Your task to perform on an android device: Open Android settings Image 0: 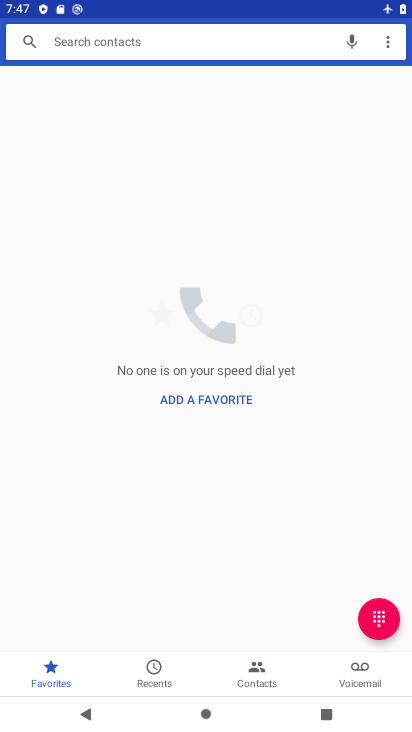
Step 0: press home button
Your task to perform on an android device: Open Android settings Image 1: 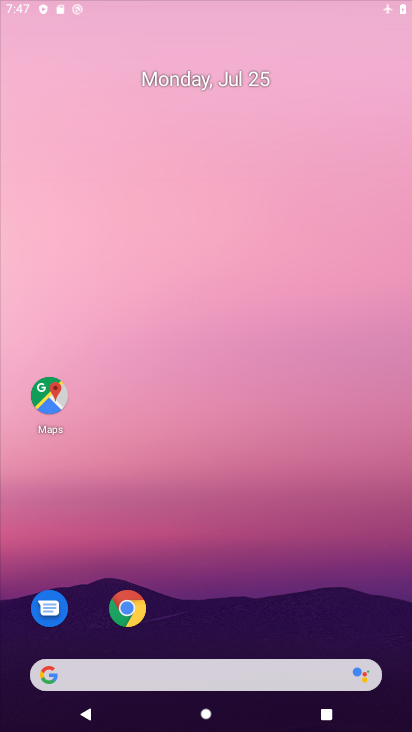
Step 1: drag from (350, 662) to (355, 203)
Your task to perform on an android device: Open Android settings Image 2: 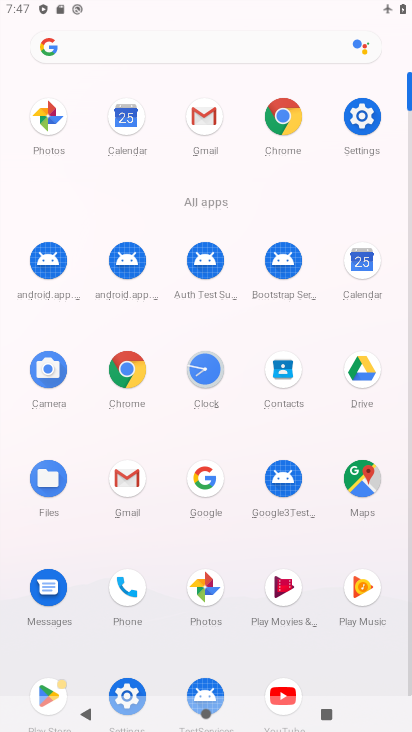
Step 2: click (364, 119)
Your task to perform on an android device: Open Android settings Image 3: 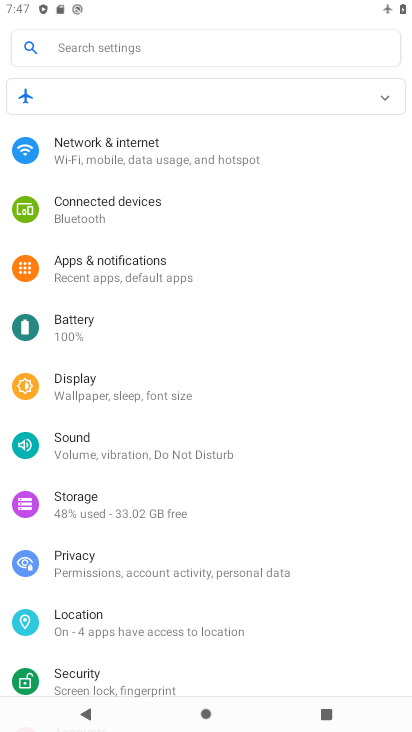
Step 3: task complete